Your task to perform on an android device: visit the assistant section in the google photos Image 0: 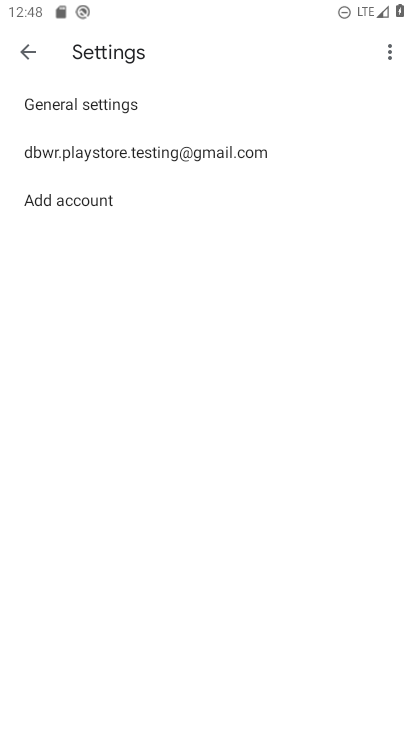
Step 0: press home button
Your task to perform on an android device: visit the assistant section in the google photos Image 1: 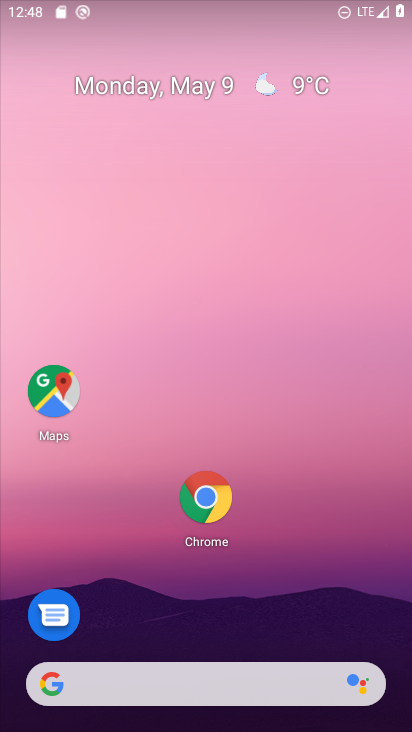
Step 1: drag from (307, 557) to (269, 52)
Your task to perform on an android device: visit the assistant section in the google photos Image 2: 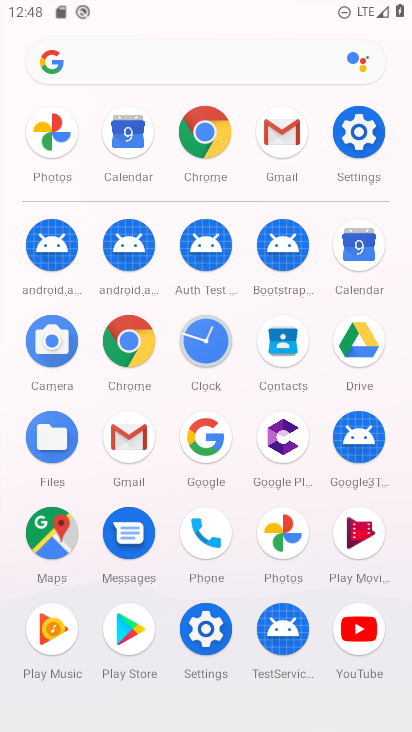
Step 2: click (283, 537)
Your task to perform on an android device: visit the assistant section in the google photos Image 3: 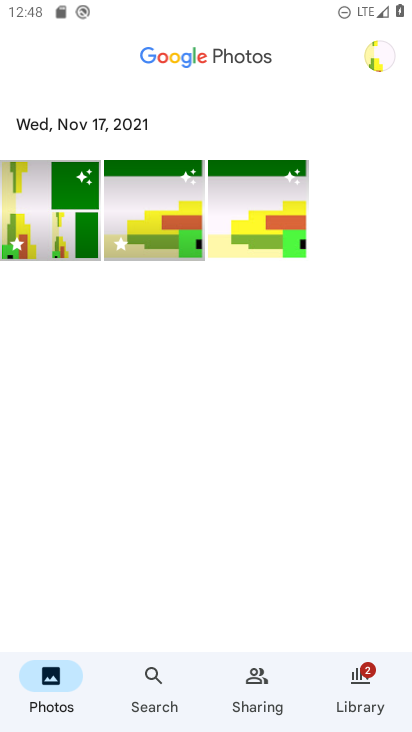
Step 3: click (354, 681)
Your task to perform on an android device: visit the assistant section in the google photos Image 4: 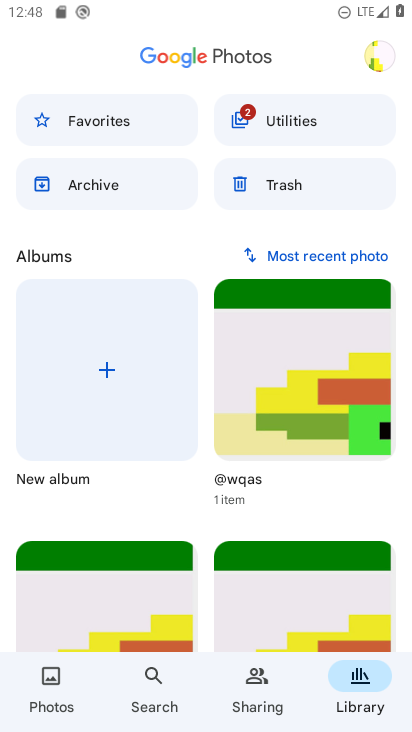
Step 4: drag from (275, 527) to (253, 622)
Your task to perform on an android device: visit the assistant section in the google photos Image 5: 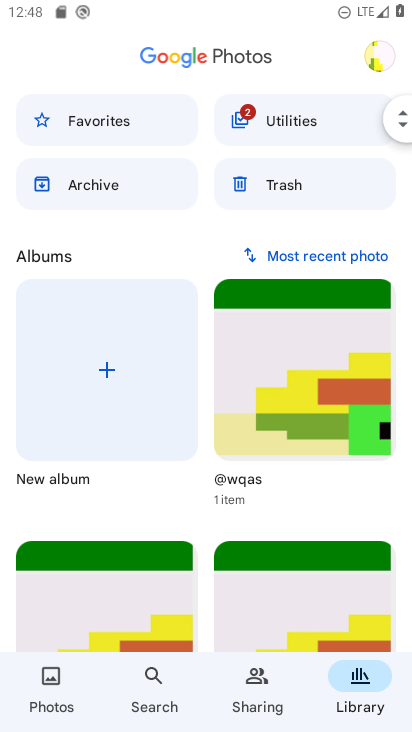
Step 5: click (194, 689)
Your task to perform on an android device: visit the assistant section in the google photos Image 6: 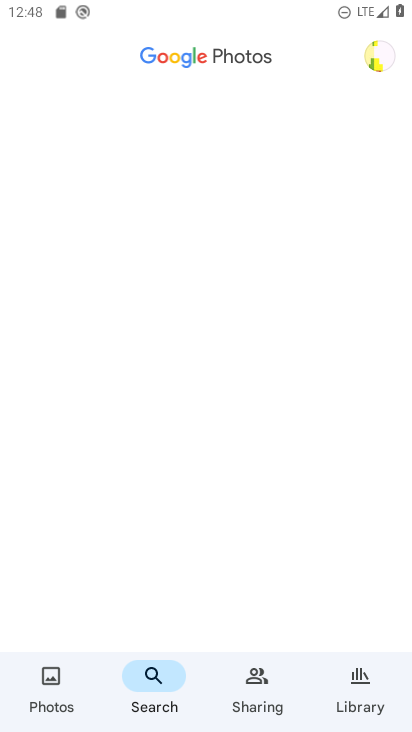
Step 6: click (259, 694)
Your task to perform on an android device: visit the assistant section in the google photos Image 7: 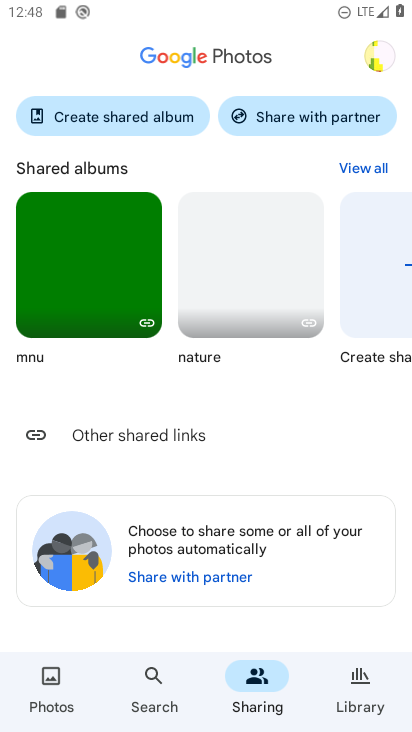
Step 7: task complete